Your task to perform on an android device: Open notification settings Image 0: 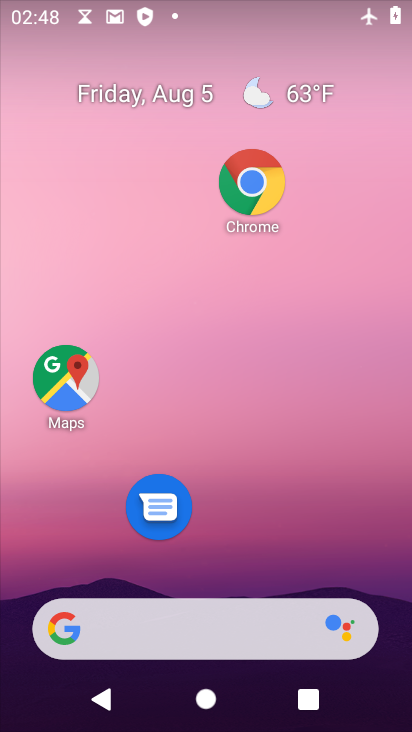
Step 0: drag from (229, 543) to (256, 226)
Your task to perform on an android device: Open notification settings Image 1: 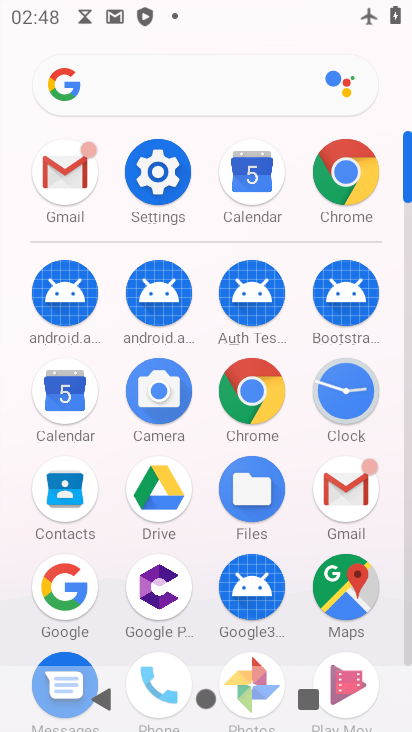
Step 1: click (141, 181)
Your task to perform on an android device: Open notification settings Image 2: 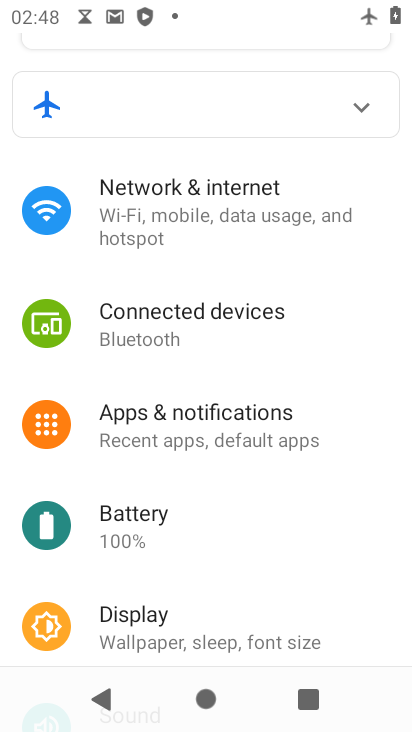
Step 2: click (227, 425)
Your task to perform on an android device: Open notification settings Image 3: 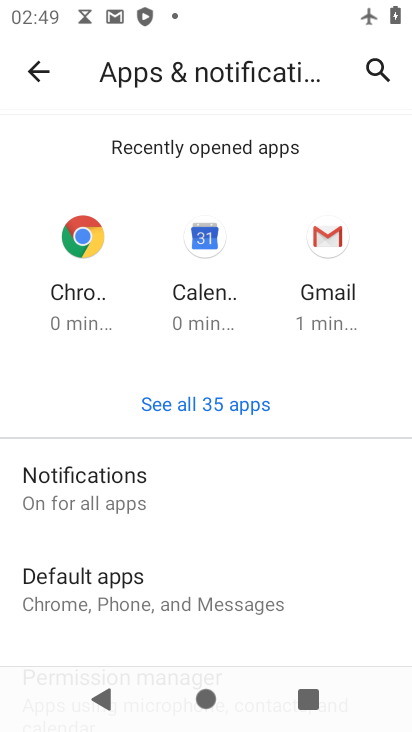
Step 3: click (127, 490)
Your task to perform on an android device: Open notification settings Image 4: 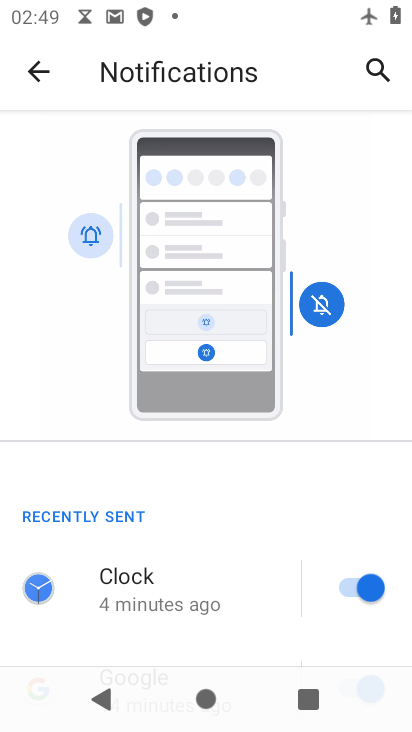
Step 4: task complete